Your task to perform on an android device: toggle location history Image 0: 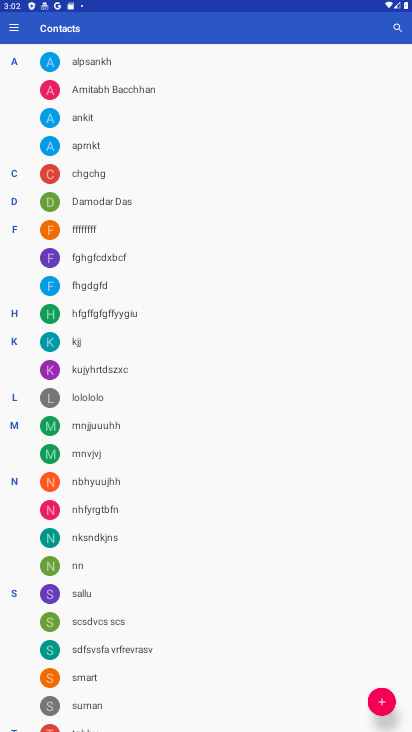
Step 0: press home button
Your task to perform on an android device: toggle location history Image 1: 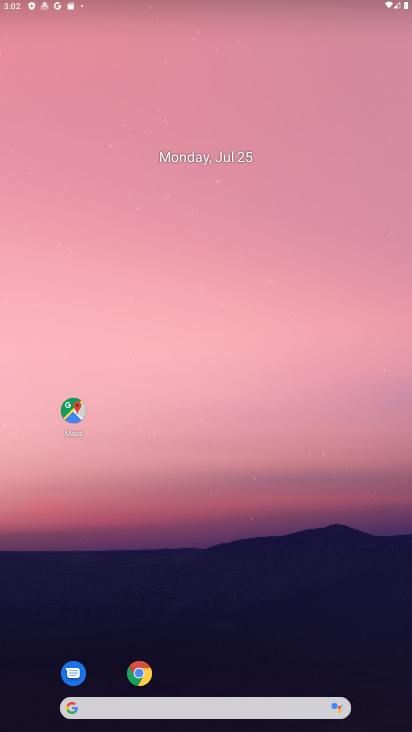
Step 1: click (231, 228)
Your task to perform on an android device: toggle location history Image 2: 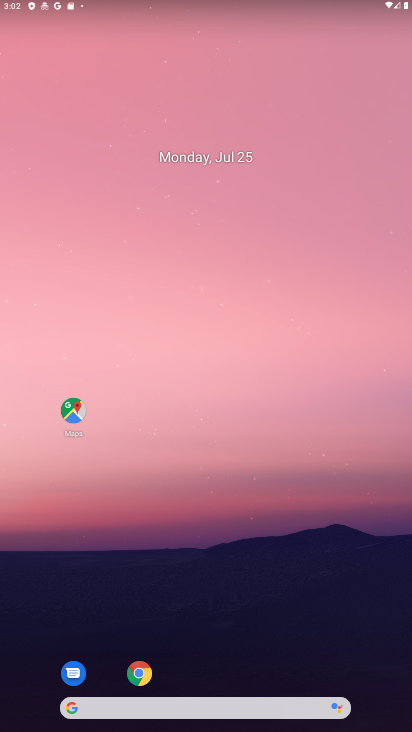
Step 2: drag from (254, 549) to (279, 111)
Your task to perform on an android device: toggle location history Image 3: 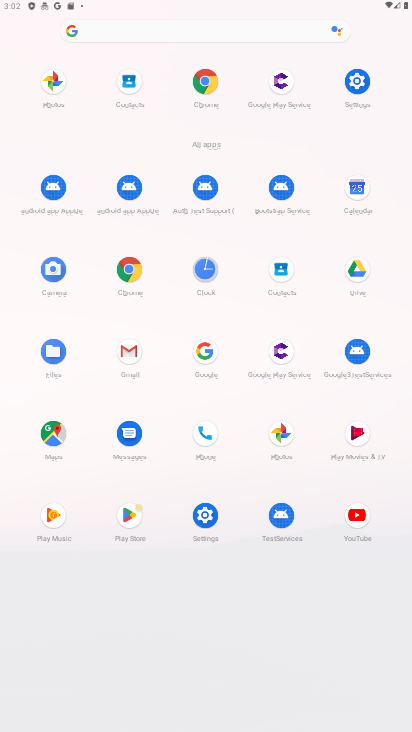
Step 3: click (359, 92)
Your task to perform on an android device: toggle location history Image 4: 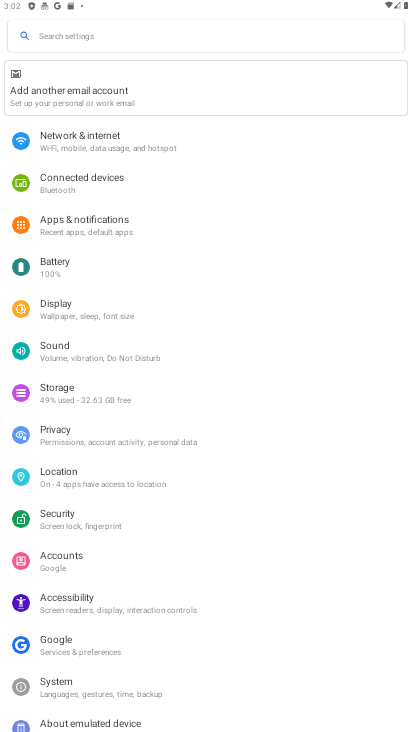
Step 4: click (55, 476)
Your task to perform on an android device: toggle location history Image 5: 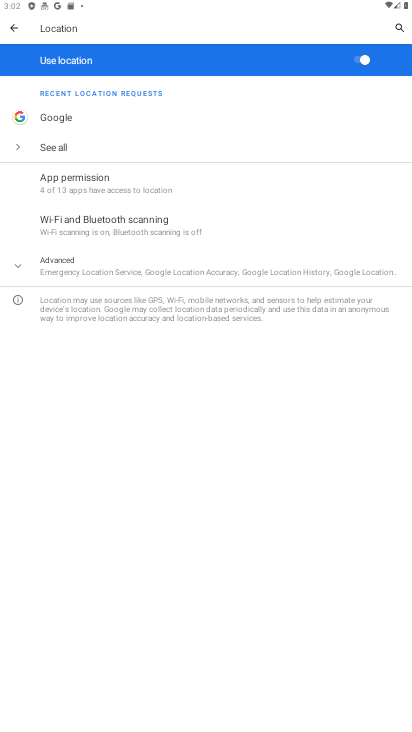
Step 5: task complete